Your task to perform on an android device: Open the phone app and click the voicemail tab. Image 0: 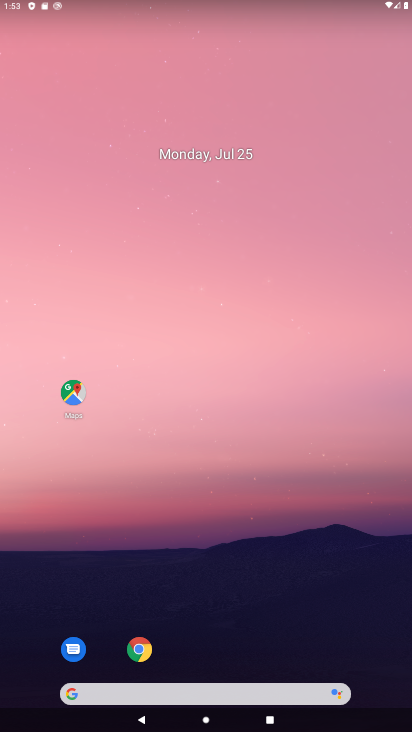
Step 0: drag from (373, 654) to (330, 130)
Your task to perform on an android device: Open the phone app and click the voicemail tab. Image 1: 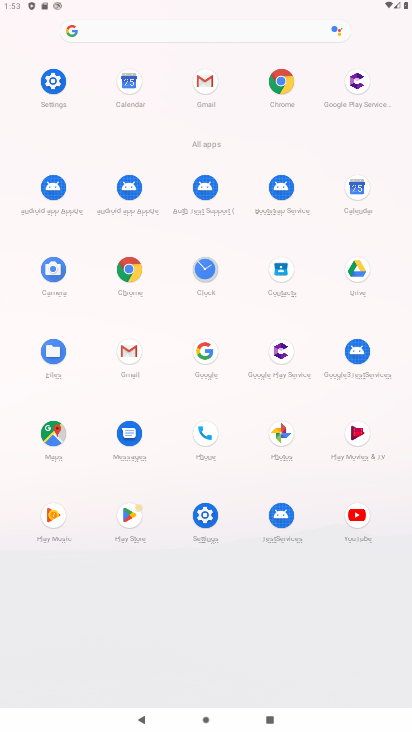
Step 1: click (202, 435)
Your task to perform on an android device: Open the phone app and click the voicemail tab. Image 2: 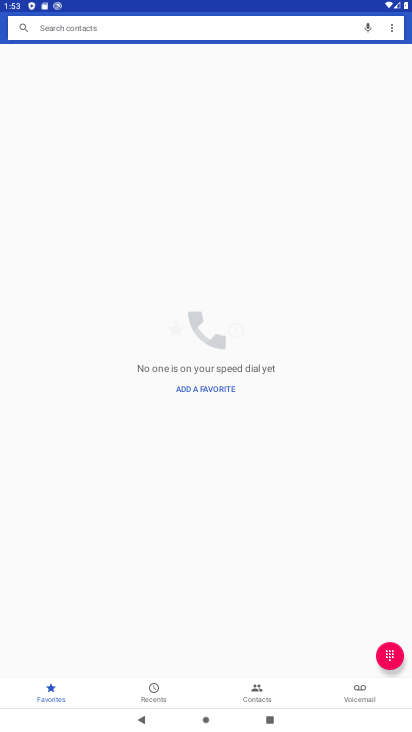
Step 2: click (355, 686)
Your task to perform on an android device: Open the phone app and click the voicemail tab. Image 3: 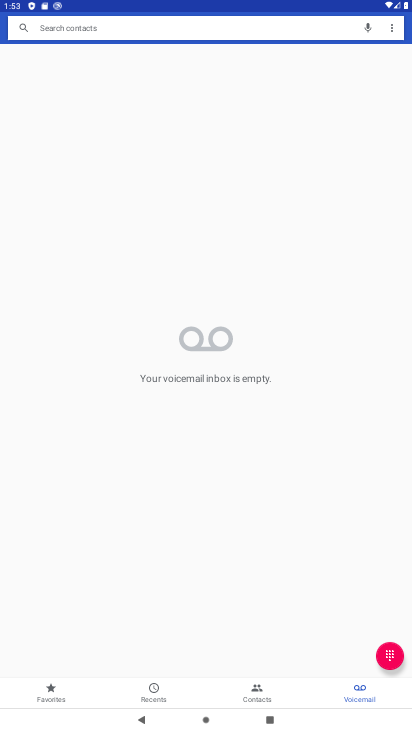
Step 3: task complete